Your task to perform on an android device: turn on priority inbox in the gmail app Image 0: 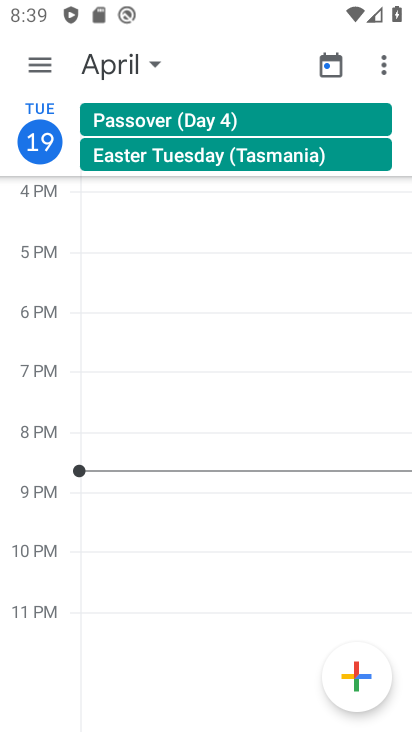
Step 0: press home button
Your task to perform on an android device: turn on priority inbox in the gmail app Image 1: 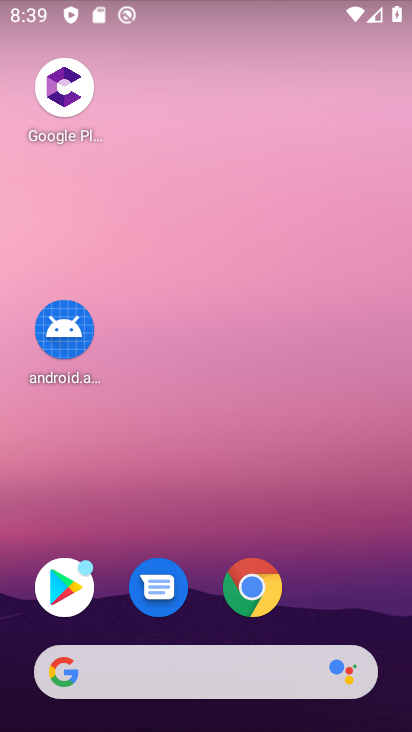
Step 1: drag from (292, 684) to (24, 2)
Your task to perform on an android device: turn on priority inbox in the gmail app Image 2: 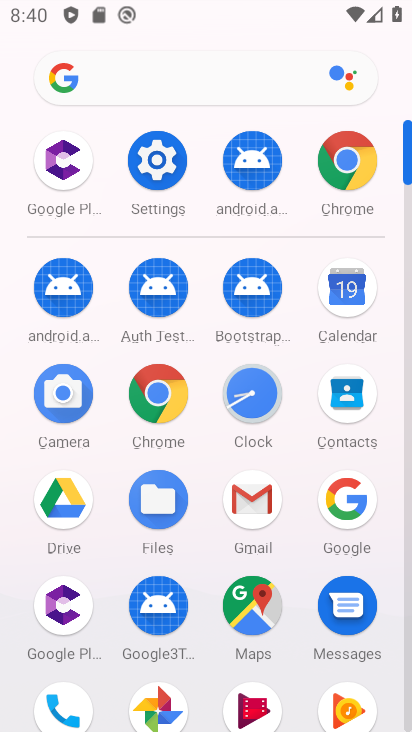
Step 2: click (252, 502)
Your task to perform on an android device: turn on priority inbox in the gmail app Image 3: 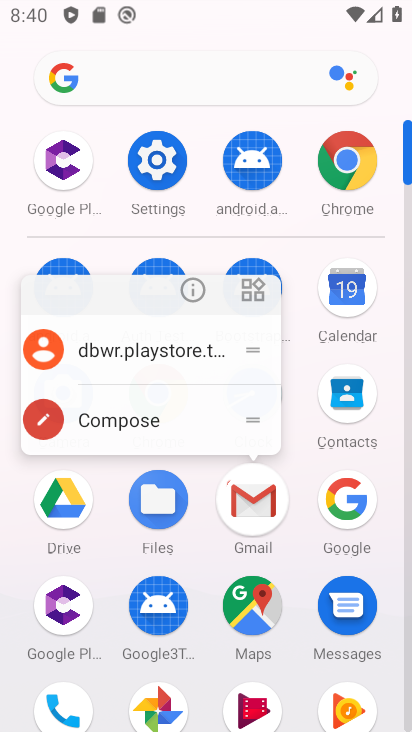
Step 3: click (252, 502)
Your task to perform on an android device: turn on priority inbox in the gmail app Image 4: 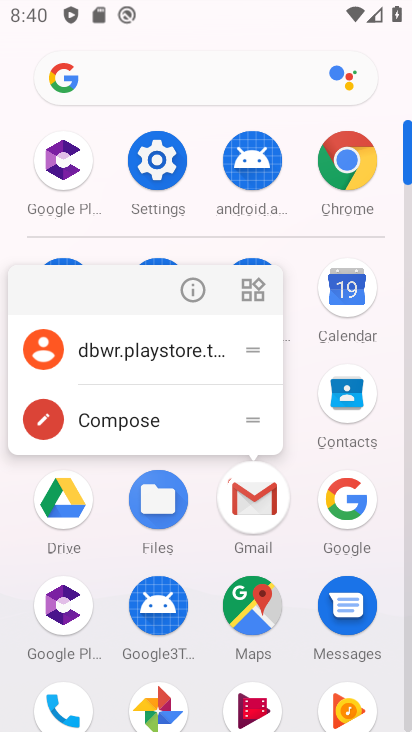
Step 4: click (253, 500)
Your task to perform on an android device: turn on priority inbox in the gmail app Image 5: 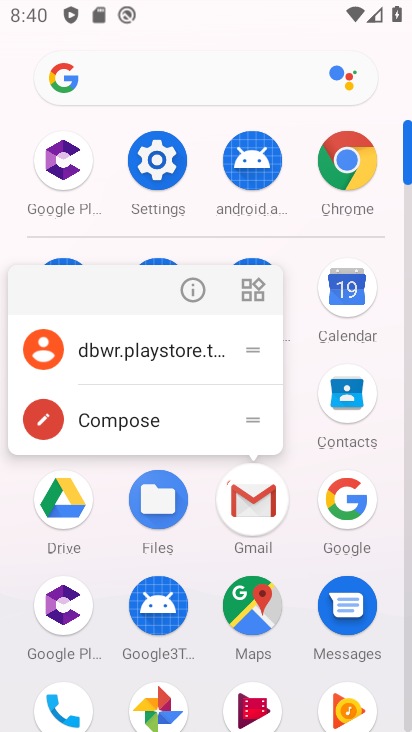
Step 5: click (253, 500)
Your task to perform on an android device: turn on priority inbox in the gmail app Image 6: 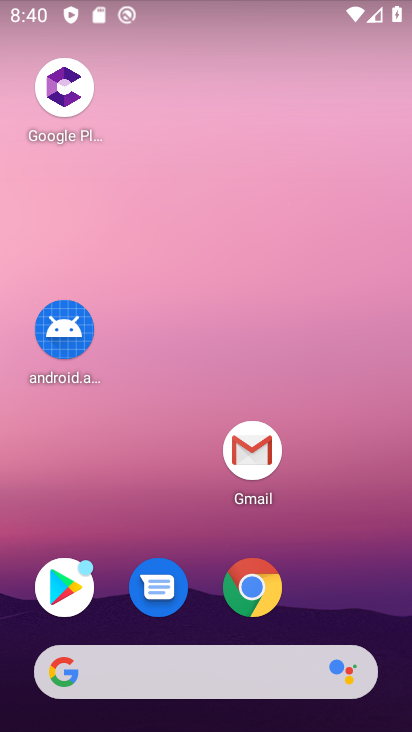
Step 6: click (234, 455)
Your task to perform on an android device: turn on priority inbox in the gmail app Image 7: 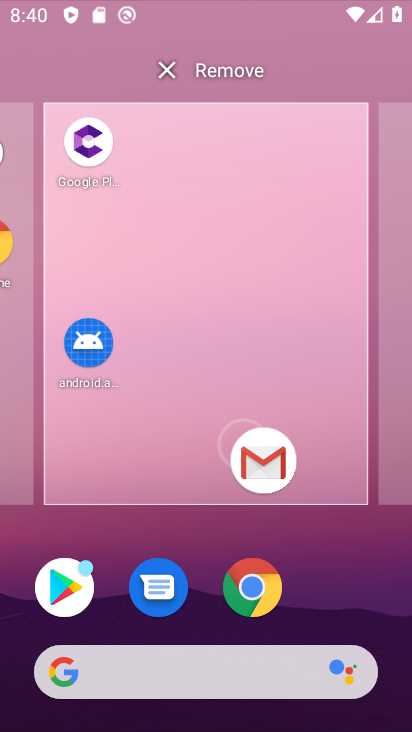
Step 7: click (245, 457)
Your task to perform on an android device: turn on priority inbox in the gmail app Image 8: 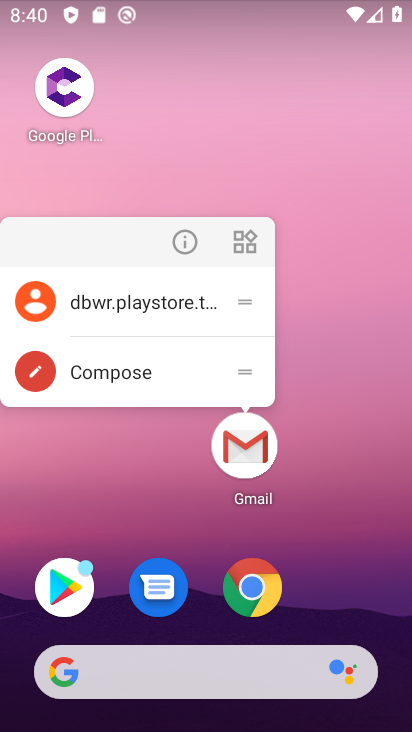
Step 8: click (245, 457)
Your task to perform on an android device: turn on priority inbox in the gmail app Image 9: 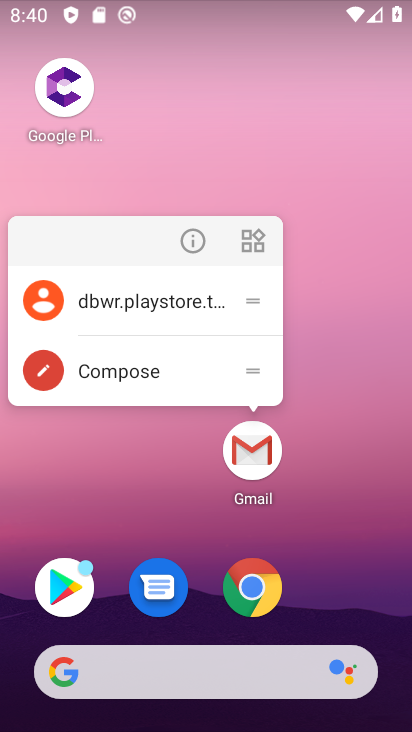
Step 9: drag from (319, 361) to (295, 66)
Your task to perform on an android device: turn on priority inbox in the gmail app Image 10: 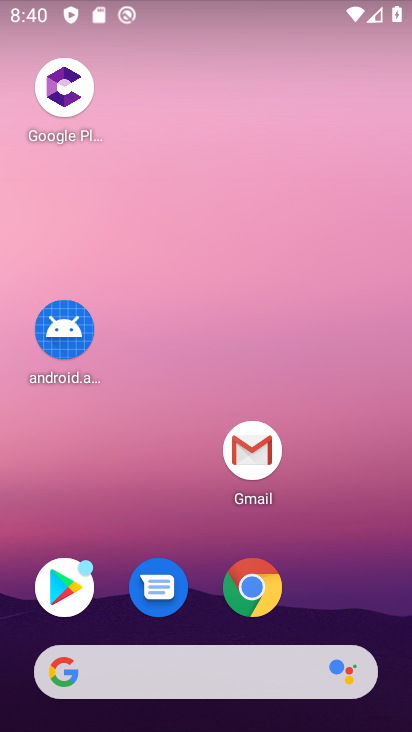
Step 10: drag from (364, 555) to (244, 11)
Your task to perform on an android device: turn on priority inbox in the gmail app Image 11: 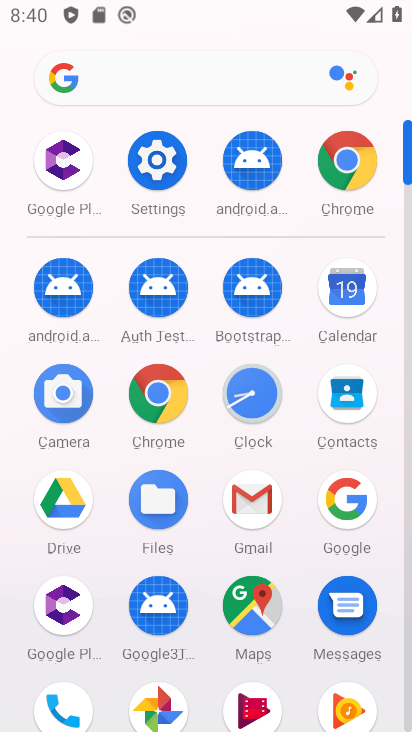
Step 11: drag from (252, 500) to (223, 475)
Your task to perform on an android device: turn on priority inbox in the gmail app Image 12: 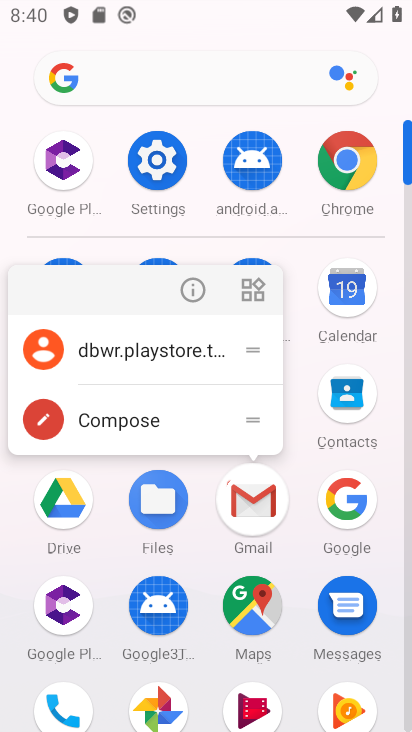
Step 12: click (222, 474)
Your task to perform on an android device: turn on priority inbox in the gmail app Image 13: 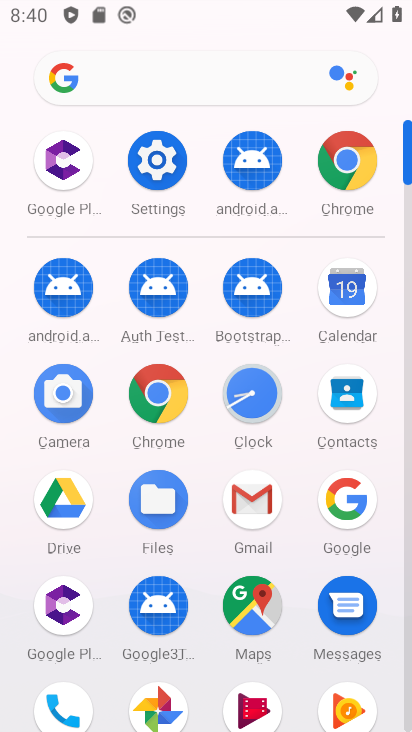
Step 13: click (251, 503)
Your task to perform on an android device: turn on priority inbox in the gmail app Image 14: 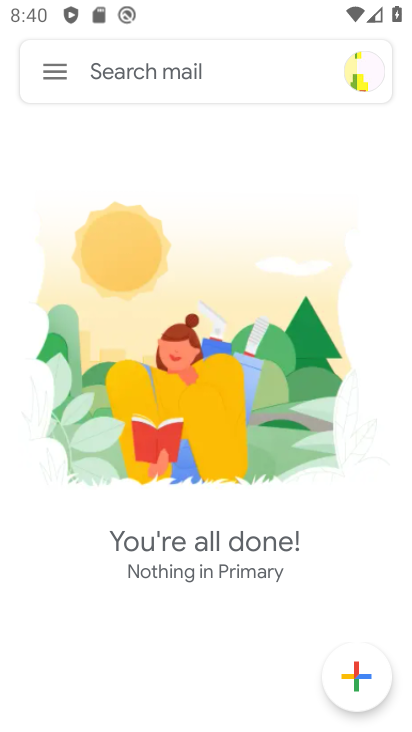
Step 14: click (56, 61)
Your task to perform on an android device: turn on priority inbox in the gmail app Image 15: 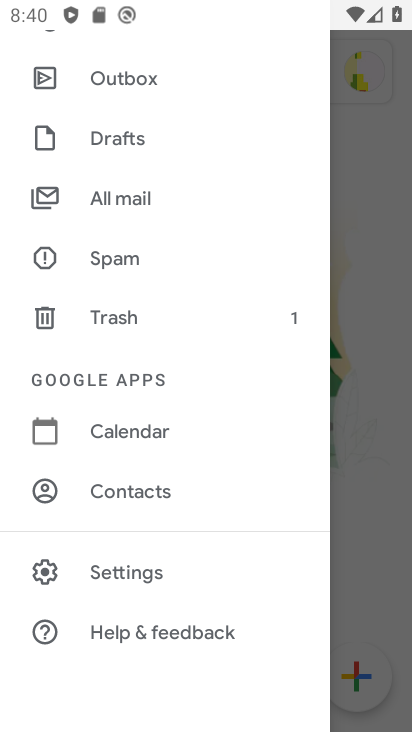
Step 15: click (127, 203)
Your task to perform on an android device: turn on priority inbox in the gmail app Image 16: 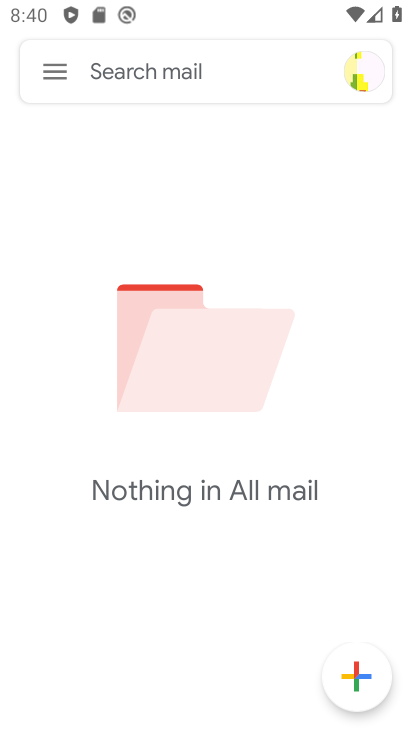
Step 16: click (55, 72)
Your task to perform on an android device: turn on priority inbox in the gmail app Image 17: 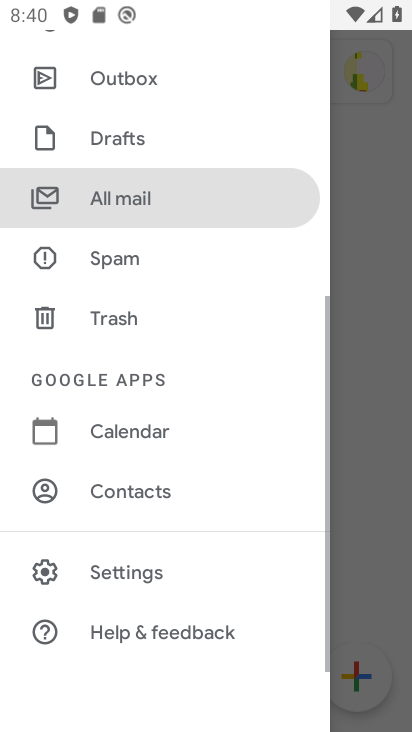
Step 17: click (129, 578)
Your task to perform on an android device: turn on priority inbox in the gmail app Image 18: 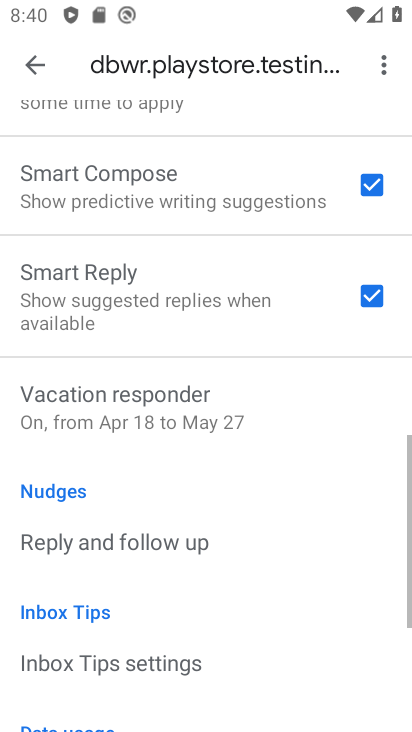
Step 18: drag from (145, 633) to (116, 235)
Your task to perform on an android device: turn on priority inbox in the gmail app Image 19: 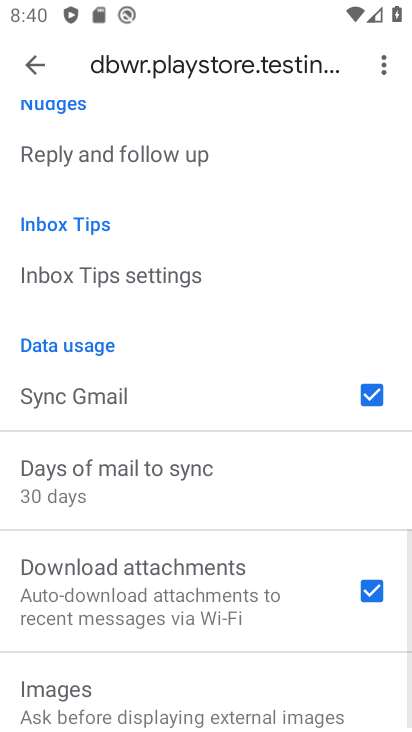
Step 19: drag from (195, 537) to (209, 88)
Your task to perform on an android device: turn on priority inbox in the gmail app Image 20: 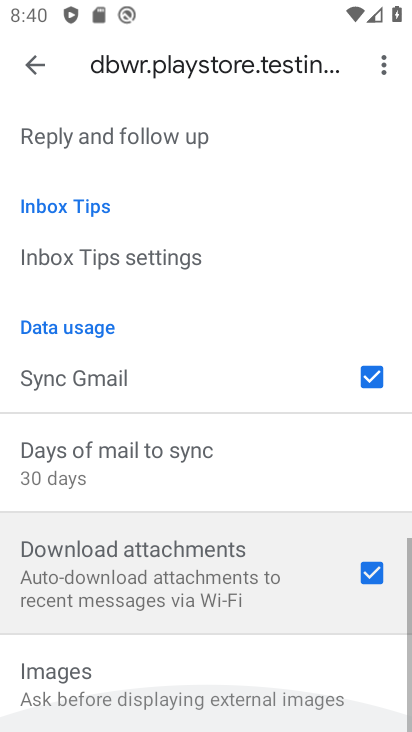
Step 20: drag from (188, 134) to (229, 126)
Your task to perform on an android device: turn on priority inbox in the gmail app Image 21: 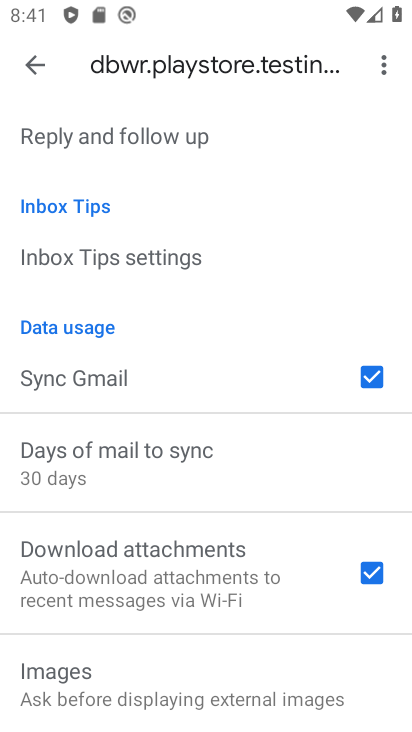
Step 21: drag from (167, 326) to (249, 581)
Your task to perform on an android device: turn on priority inbox in the gmail app Image 22: 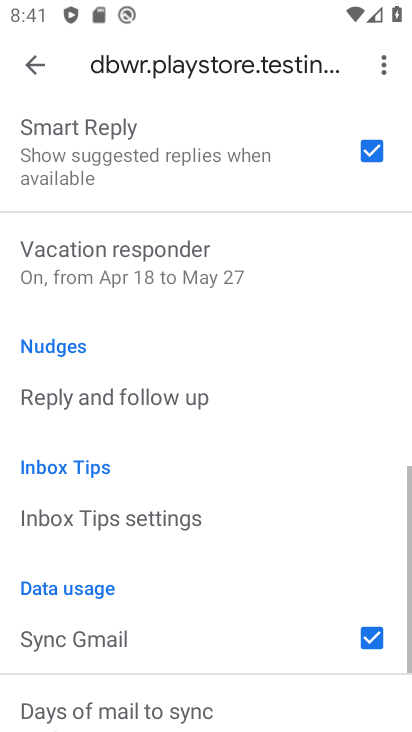
Step 22: drag from (237, 452) to (248, 567)
Your task to perform on an android device: turn on priority inbox in the gmail app Image 23: 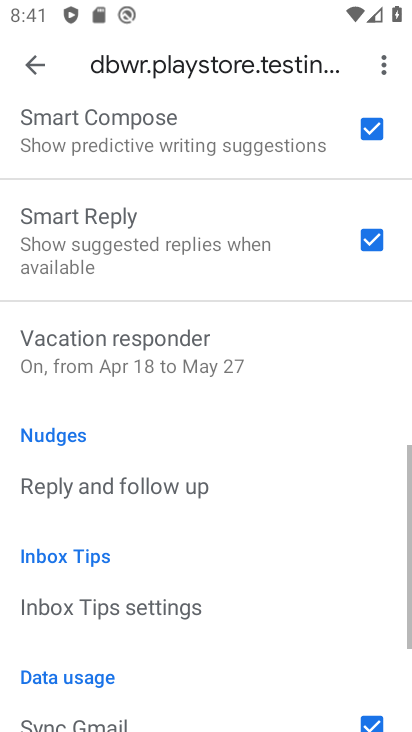
Step 23: drag from (133, 211) to (203, 473)
Your task to perform on an android device: turn on priority inbox in the gmail app Image 24: 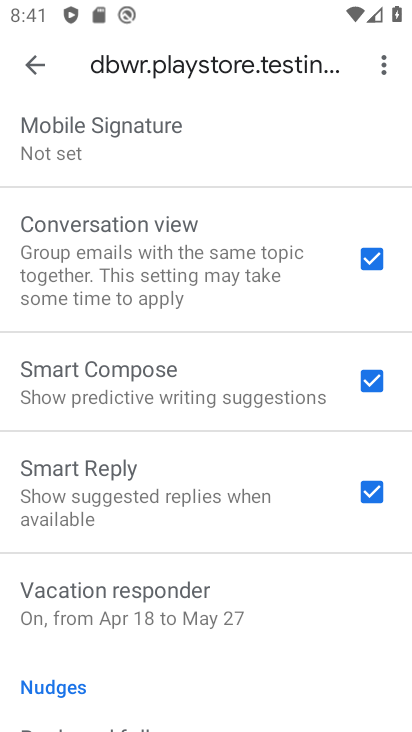
Step 24: drag from (168, 259) to (216, 647)
Your task to perform on an android device: turn on priority inbox in the gmail app Image 25: 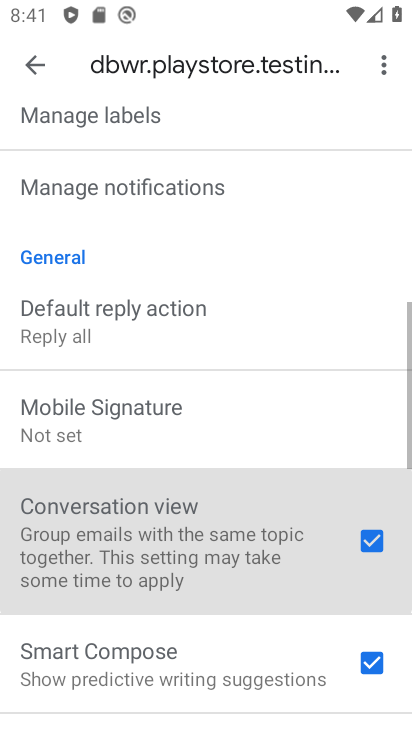
Step 25: drag from (176, 270) to (251, 570)
Your task to perform on an android device: turn on priority inbox in the gmail app Image 26: 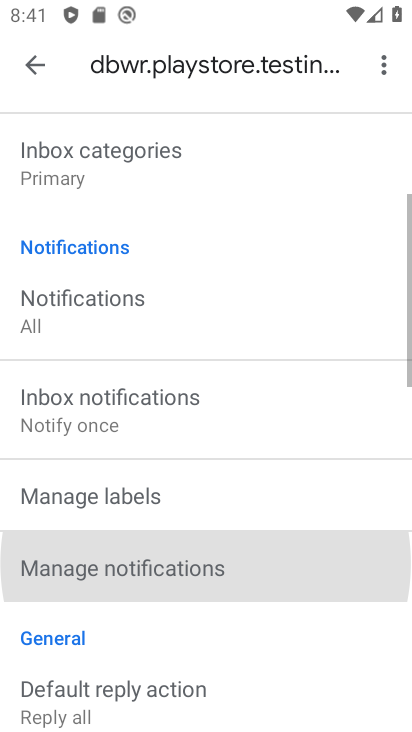
Step 26: drag from (182, 384) to (244, 709)
Your task to perform on an android device: turn on priority inbox in the gmail app Image 27: 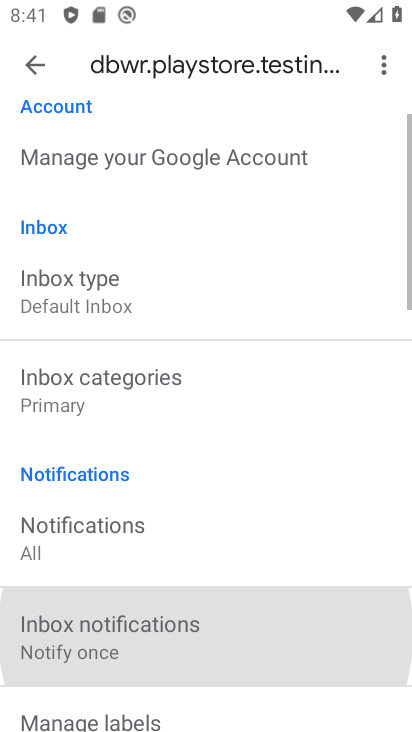
Step 27: drag from (191, 271) to (257, 663)
Your task to perform on an android device: turn on priority inbox in the gmail app Image 28: 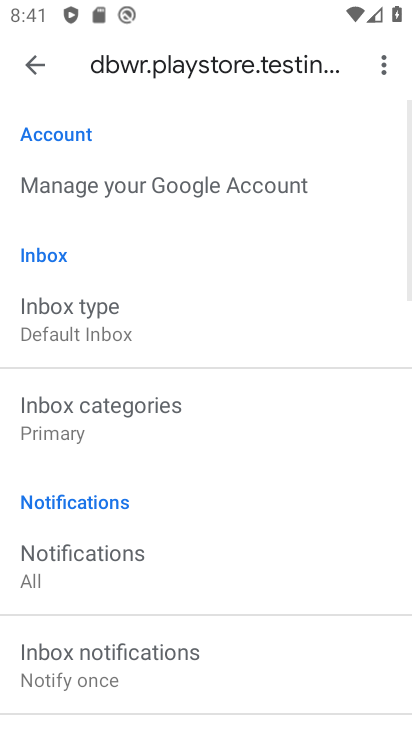
Step 28: click (85, 319)
Your task to perform on an android device: turn on priority inbox in the gmail app Image 29: 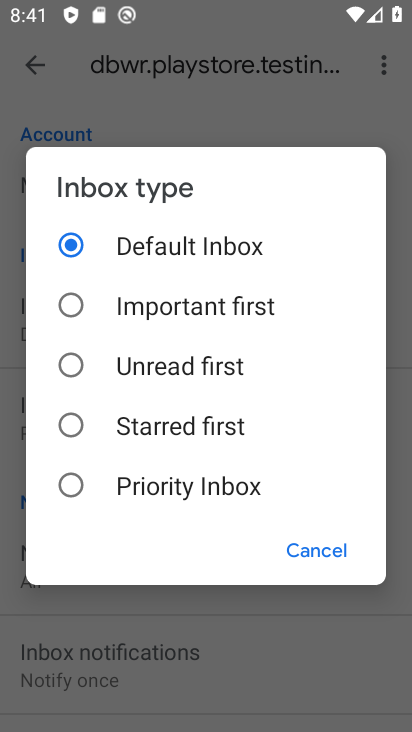
Step 29: click (68, 481)
Your task to perform on an android device: turn on priority inbox in the gmail app Image 30: 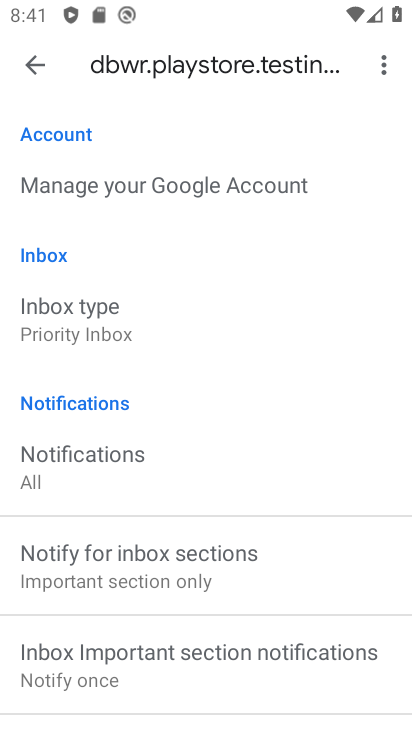
Step 30: task complete